Your task to perform on an android device: What is the news today? Image 0: 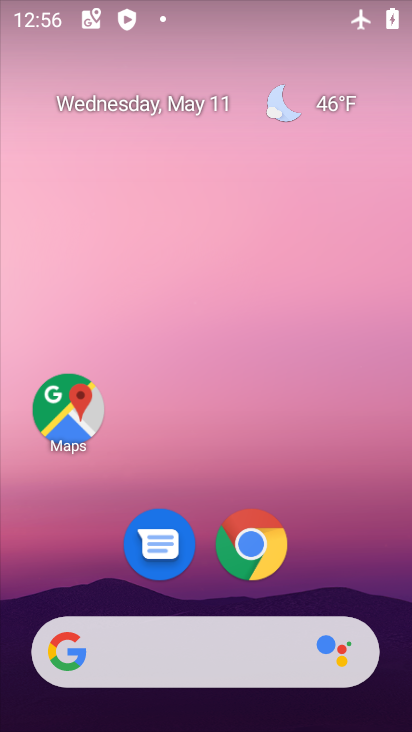
Step 0: drag from (12, 249) to (372, 234)
Your task to perform on an android device: What is the news today? Image 1: 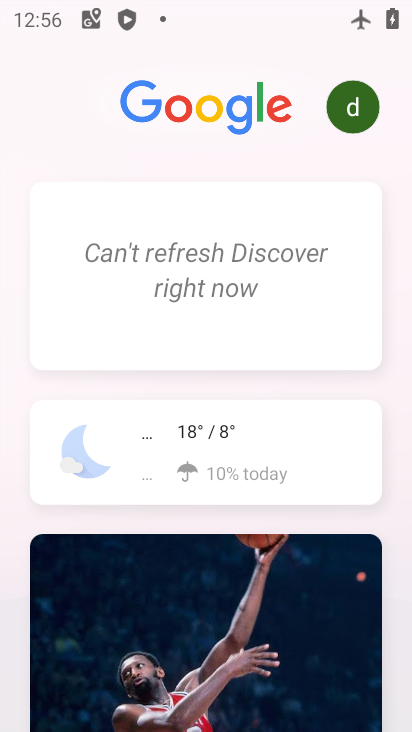
Step 1: task complete